Your task to perform on an android device: Go to Reddit.com Image 0: 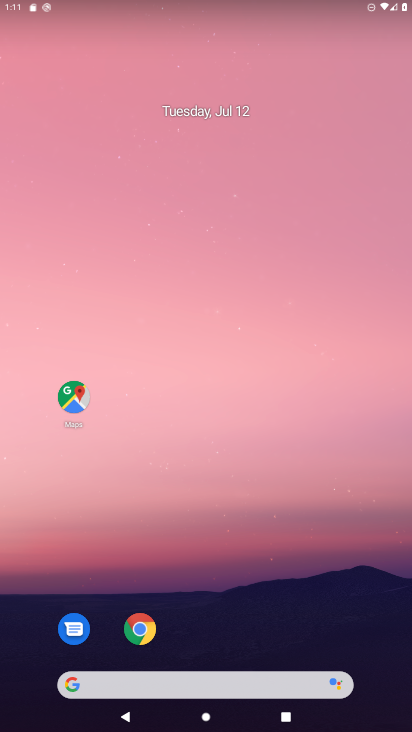
Step 0: press home button
Your task to perform on an android device: Go to Reddit.com Image 1: 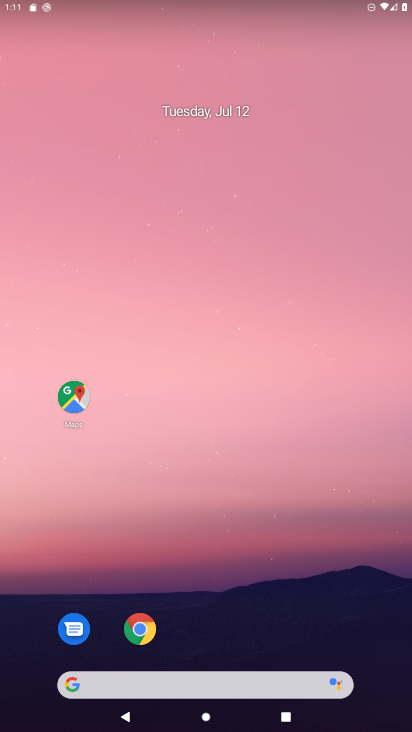
Step 1: click (139, 623)
Your task to perform on an android device: Go to Reddit.com Image 2: 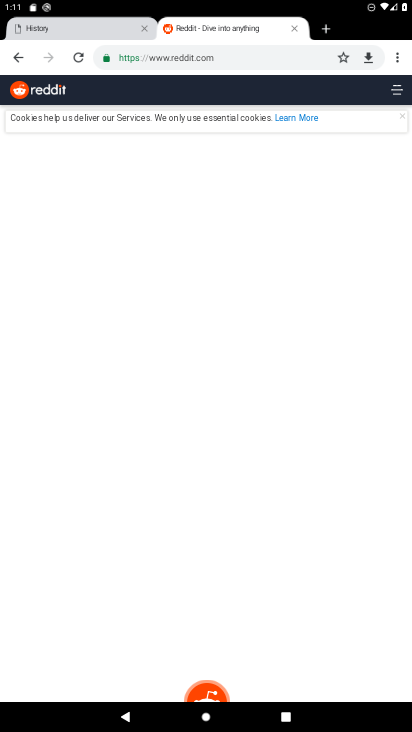
Step 2: drag from (266, 288) to (241, 614)
Your task to perform on an android device: Go to Reddit.com Image 3: 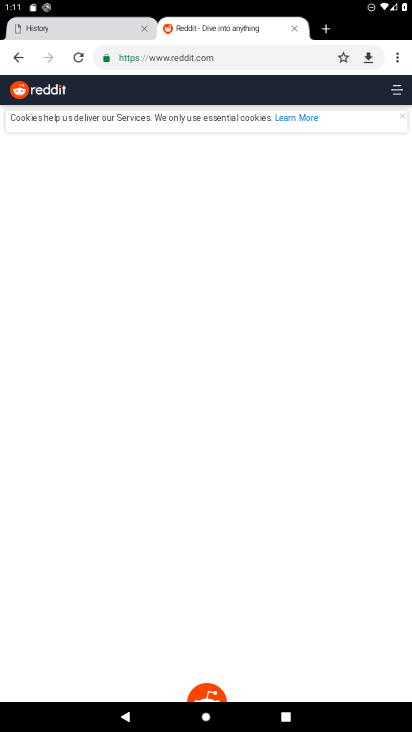
Step 3: click (293, 28)
Your task to perform on an android device: Go to Reddit.com Image 4: 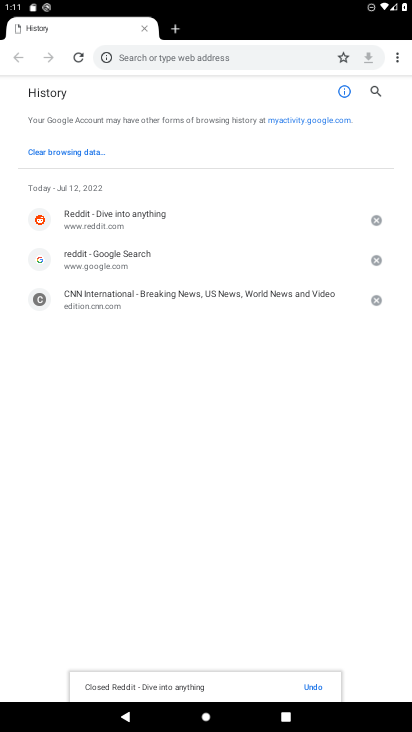
Step 4: click (177, 28)
Your task to perform on an android device: Go to Reddit.com Image 5: 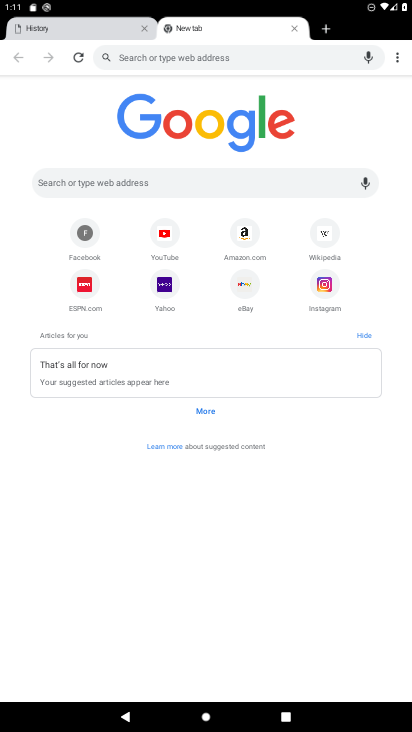
Step 5: type "reddit.com"
Your task to perform on an android device: Go to Reddit.com Image 6: 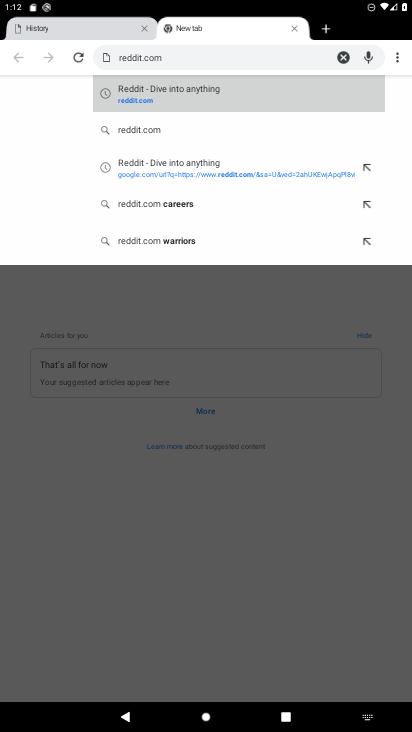
Step 6: click (152, 94)
Your task to perform on an android device: Go to Reddit.com Image 7: 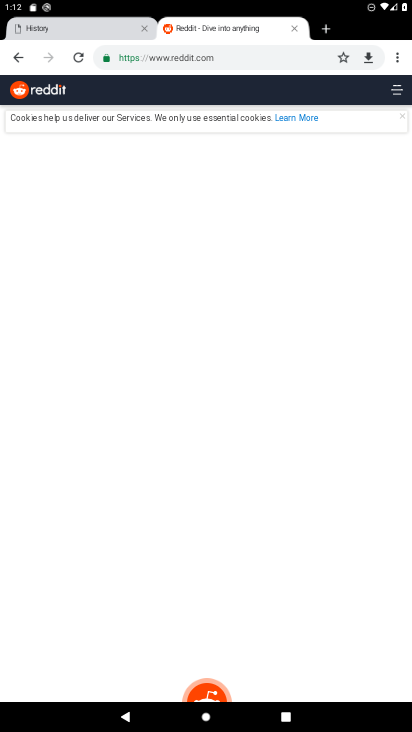
Step 7: task complete